Your task to perform on an android device: Go to Google maps Image 0: 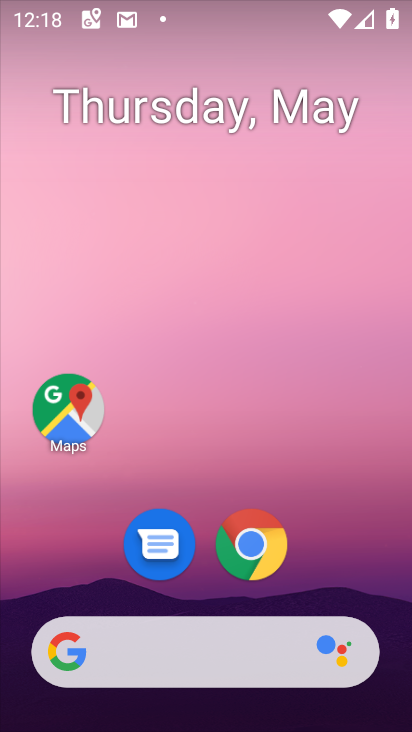
Step 0: click (61, 423)
Your task to perform on an android device: Go to Google maps Image 1: 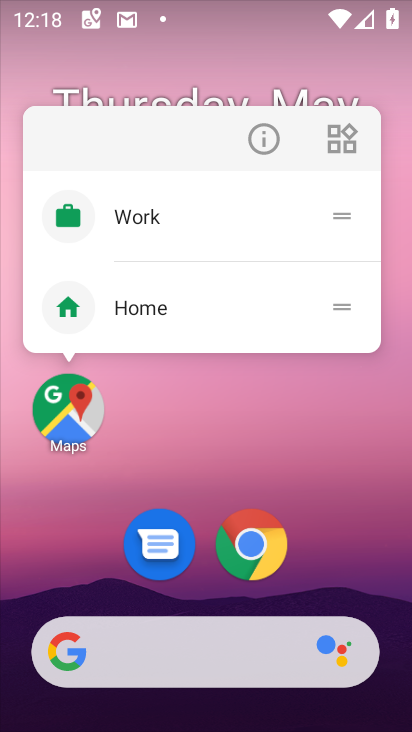
Step 1: click (62, 422)
Your task to perform on an android device: Go to Google maps Image 2: 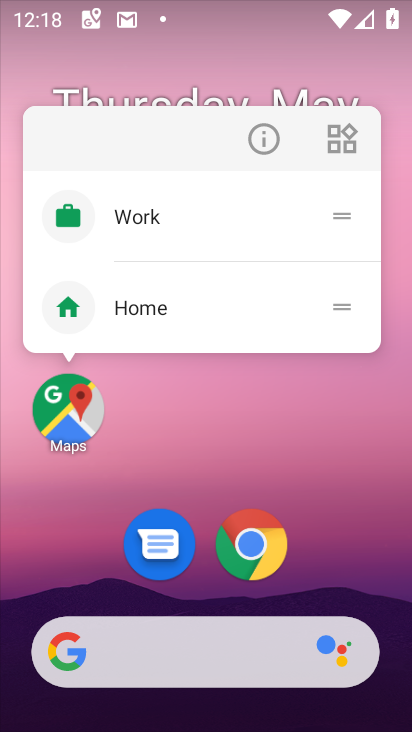
Step 2: click (62, 422)
Your task to perform on an android device: Go to Google maps Image 3: 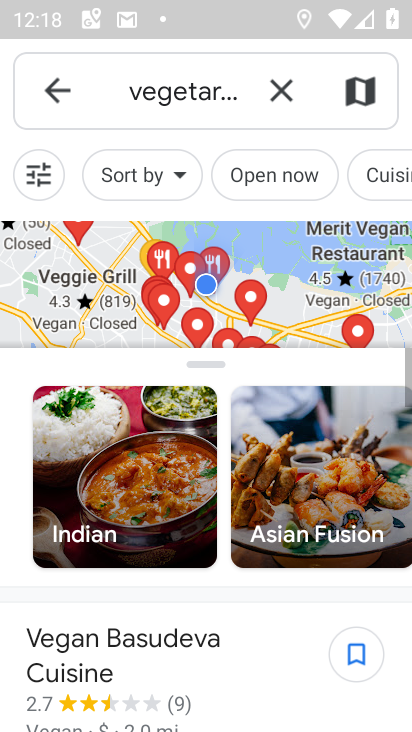
Step 3: task complete